Your task to perform on an android device: Open Google Chrome and click the shortcut for Amazon.com Image 0: 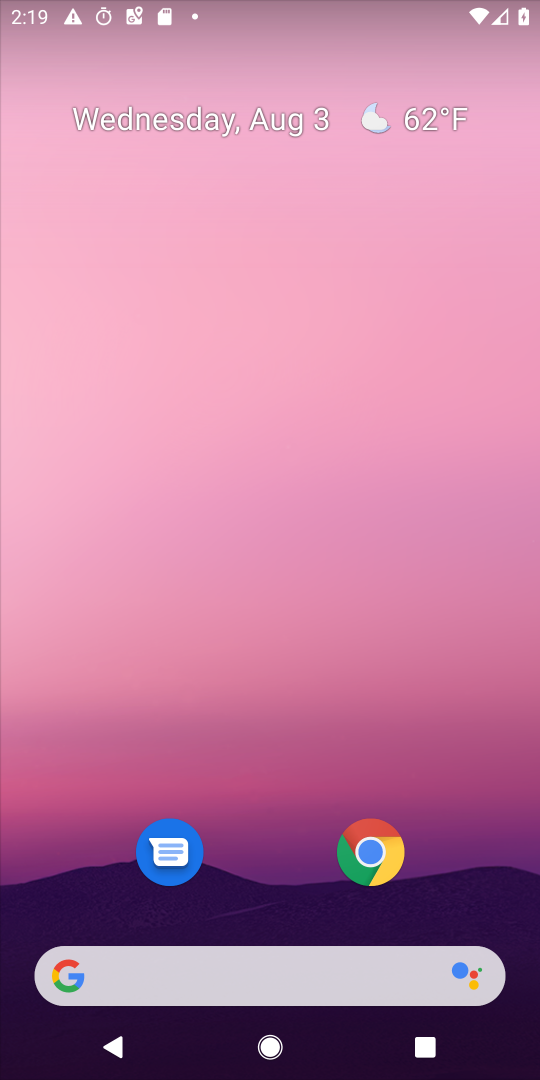
Step 0: drag from (481, 885) to (243, 47)
Your task to perform on an android device: Open Google Chrome and click the shortcut for Amazon.com Image 1: 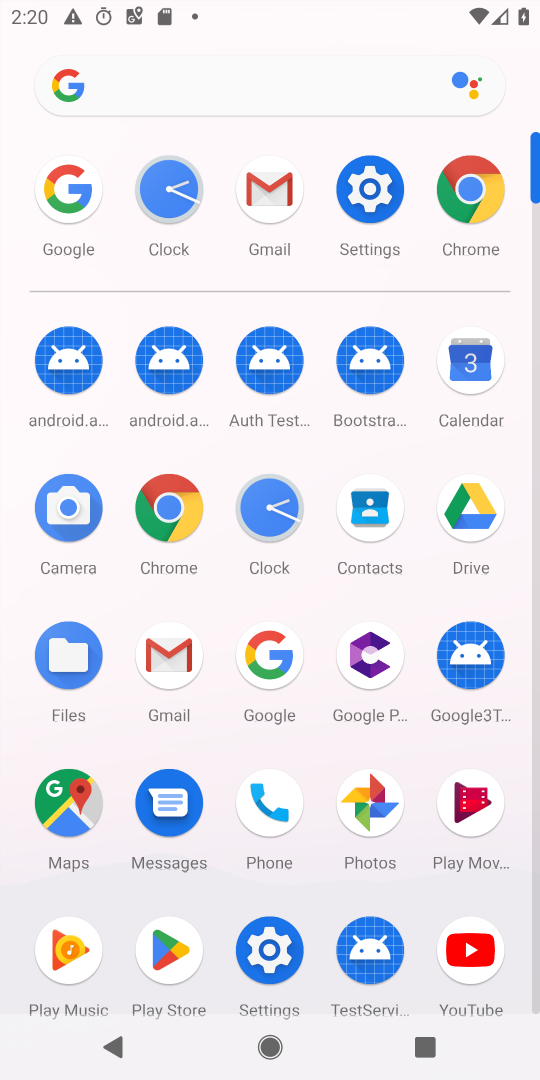
Step 1: click (166, 516)
Your task to perform on an android device: Open Google Chrome and click the shortcut for Amazon.com Image 2: 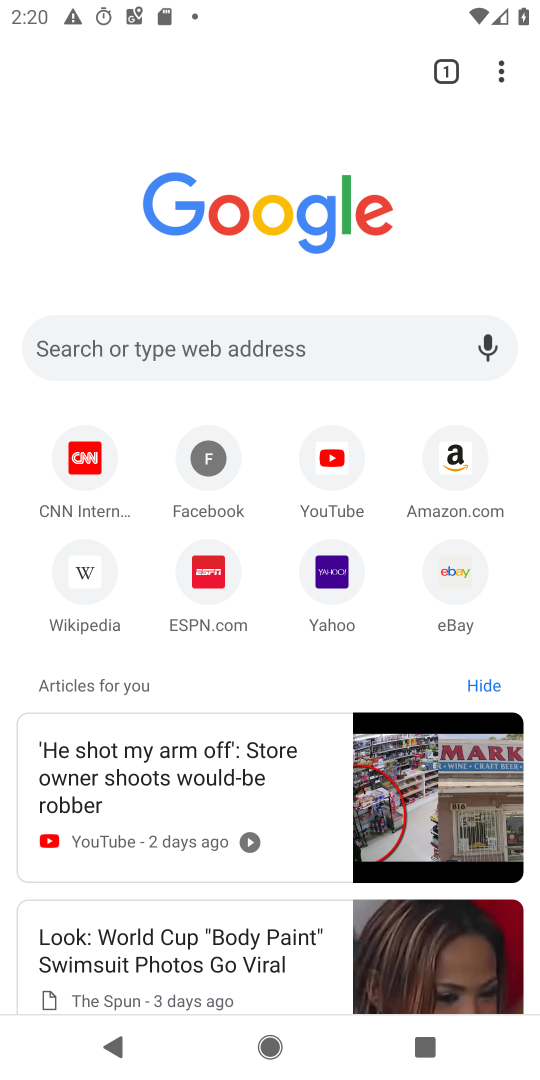
Step 2: click (474, 470)
Your task to perform on an android device: Open Google Chrome and click the shortcut for Amazon.com Image 3: 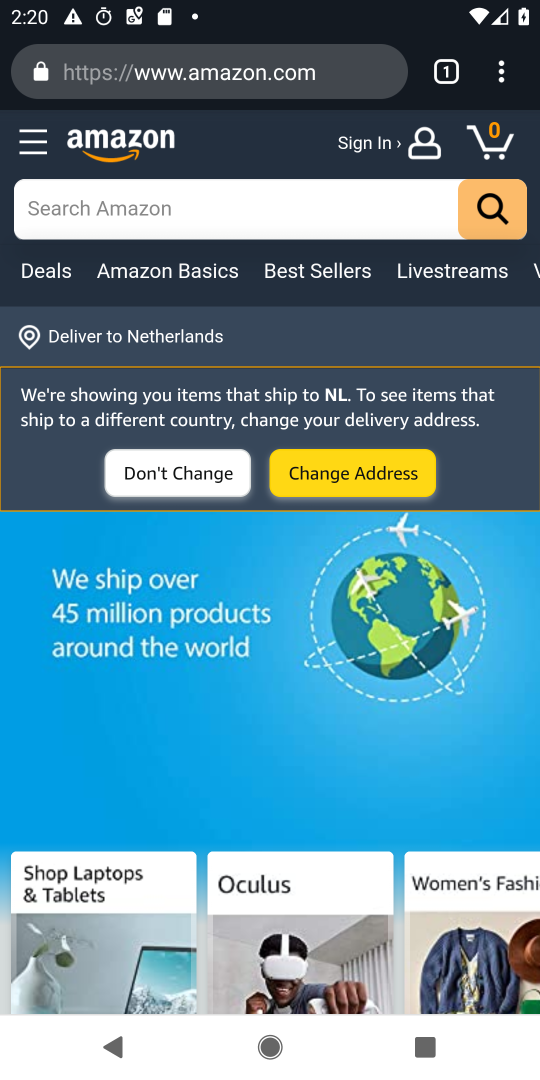
Step 3: task complete